Your task to perform on an android device: open device folders in google photos Image 0: 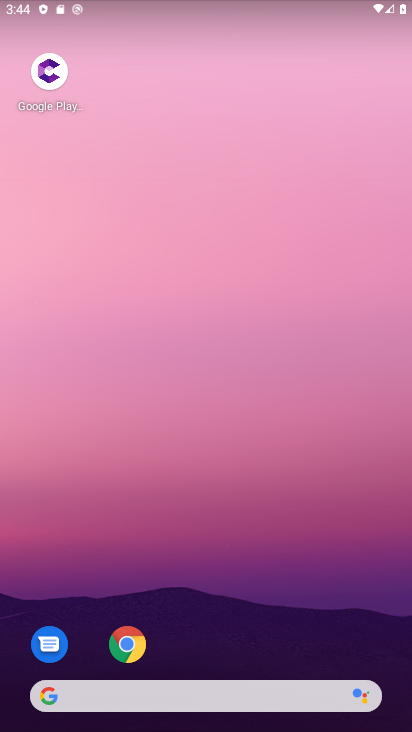
Step 0: drag from (217, 658) to (290, 112)
Your task to perform on an android device: open device folders in google photos Image 1: 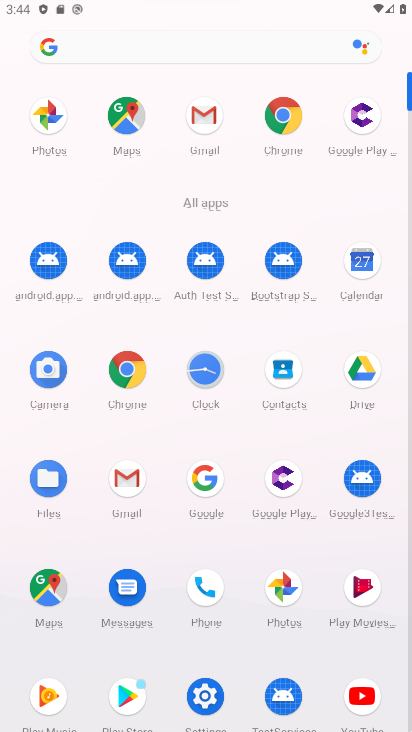
Step 1: click (284, 591)
Your task to perform on an android device: open device folders in google photos Image 2: 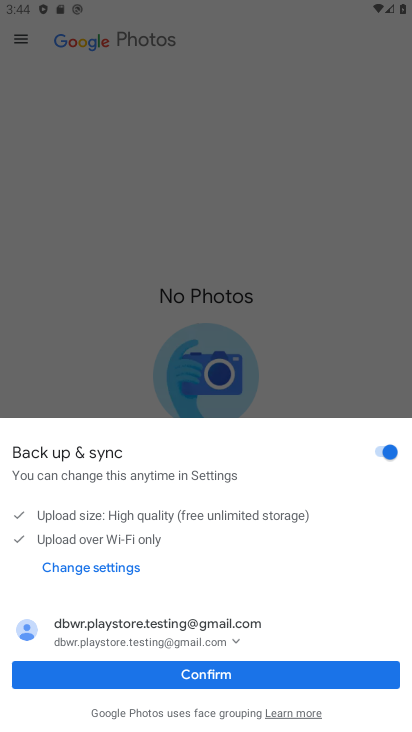
Step 2: click (197, 670)
Your task to perform on an android device: open device folders in google photos Image 3: 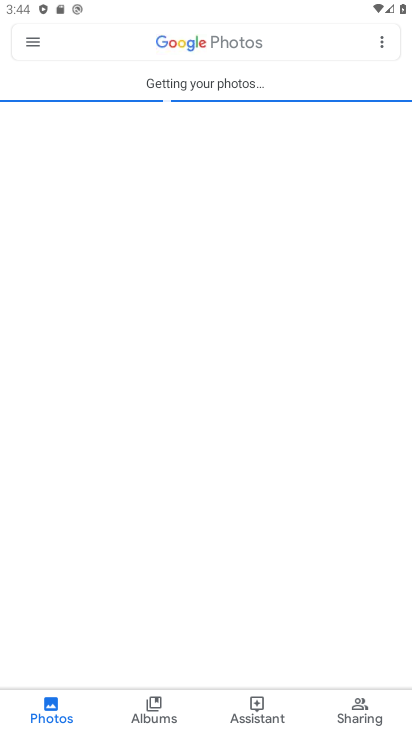
Step 3: click (28, 42)
Your task to perform on an android device: open device folders in google photos Image 4: 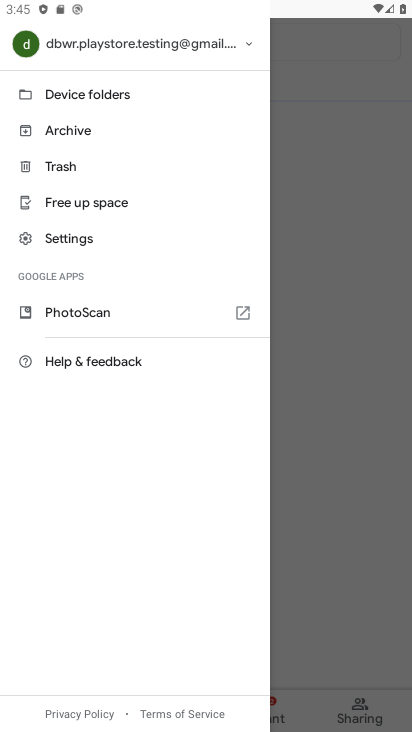
Step 4: click (88, 98)
Your task to perform on an android device: open device folders in google photos Image 5: 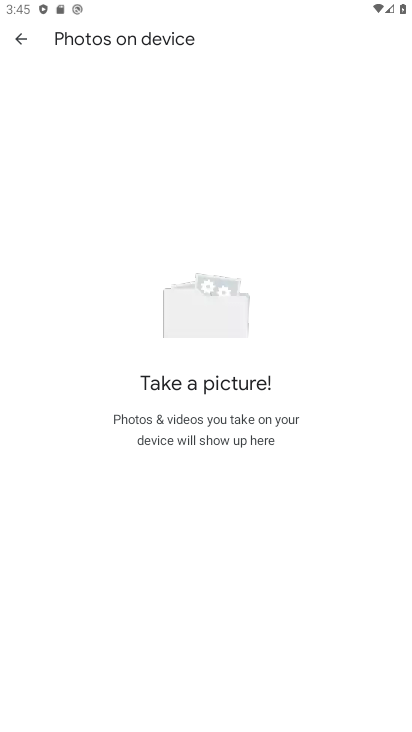
Step 5: task complete